Your task to perform on an android device: move an email to a new category in the gmail app Image 0: 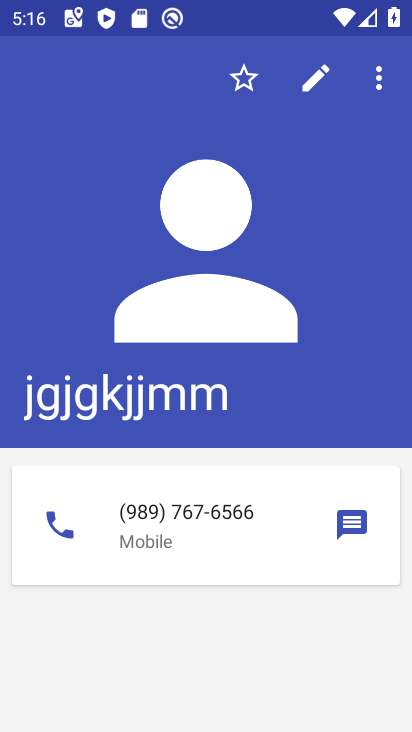
Step 0: press home button
Your task to perform on an android device: move an email to a new category in the gmail app Image 1: 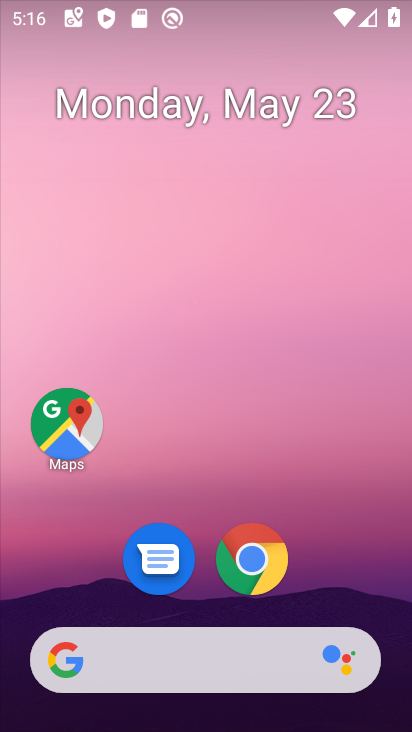
Step 1: drag from (130, 636) to (360, 15)
Your task to perform on an android device: move an email to a new category in the gmail app Image 2: 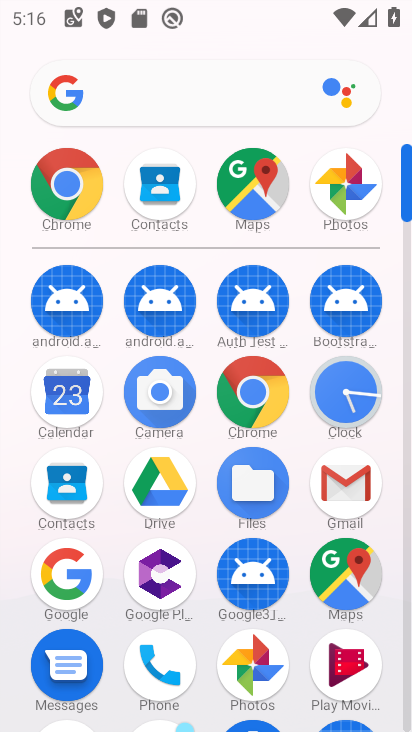
Step 2: click (339, 473)
Your task to perform on an android device: move an email to a new category in the gmail app Image 3: 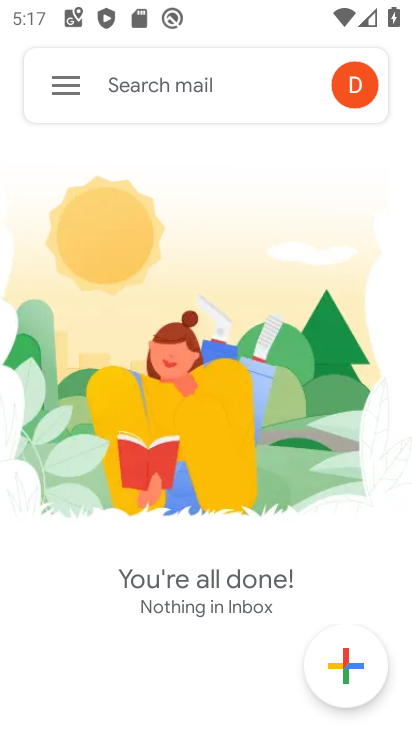
Step 3: click (66, 71)
Your task to perform on an android device: move an email to a new category in the gmail app Image 4: 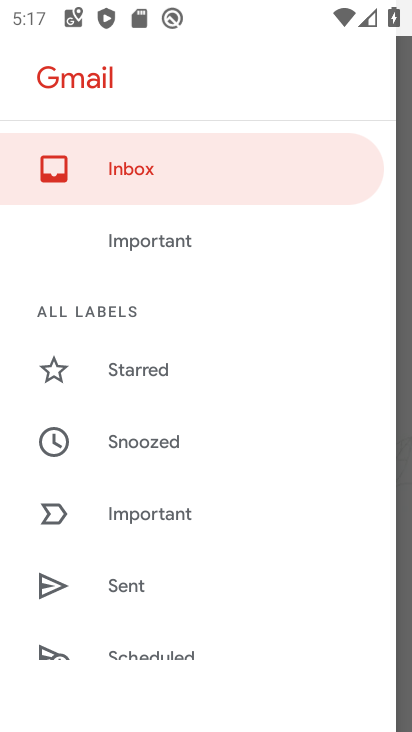
Step 4: click (404, 453)
Your task to perform on an android device: move an email to a new category in the gmail app Image 5: 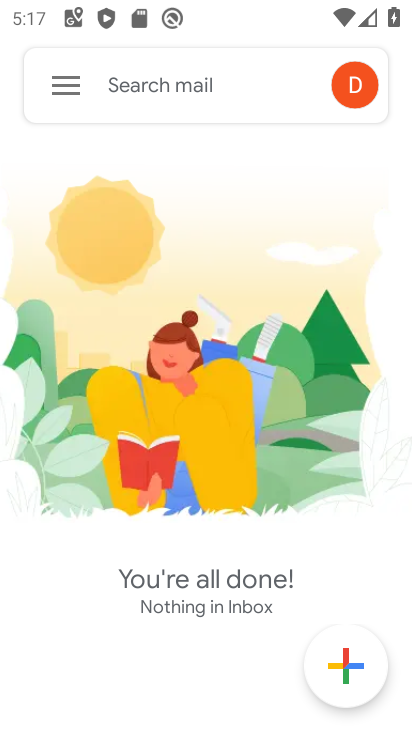
Step 5: task complete